Your task to perform on an android device: read, delete, or share a saved page in the chrome app Image 0: 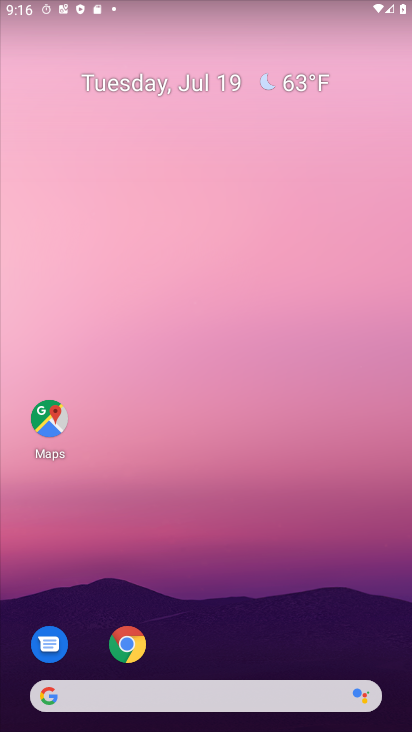
Step 0: click (209, 109)
Your task to perform on an android device: read, delete, or share a saved page in the chrome app Image 1: 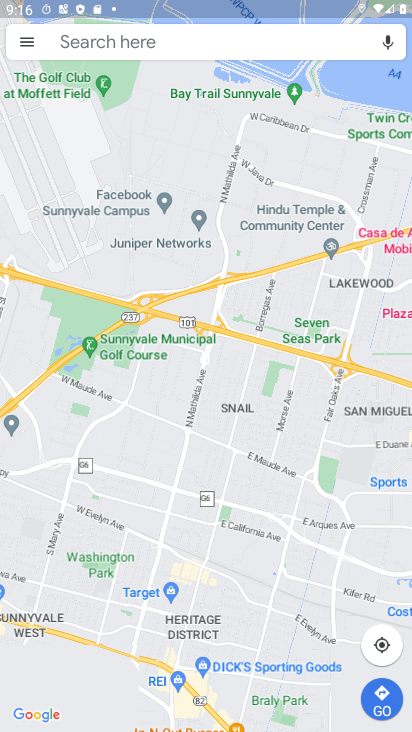
Step 1: click (221, 274)
Your task to perform on an android device: read, delete, or share a saved page in the chrome app Image 2: 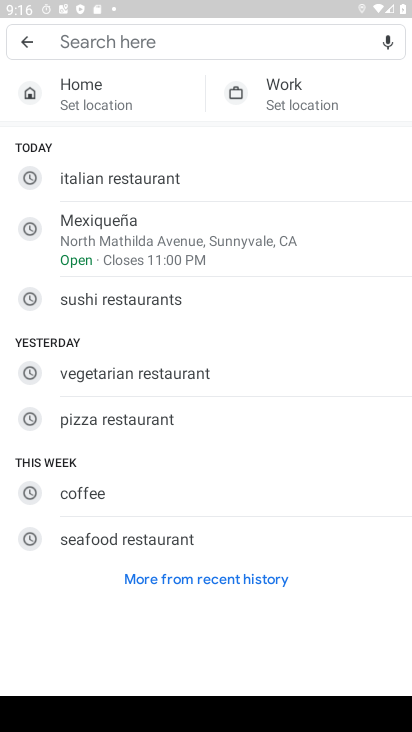
Step 2: press back button
Your task to perform on an android device: read, delete, or share a saved page in the chrome app Image 3: 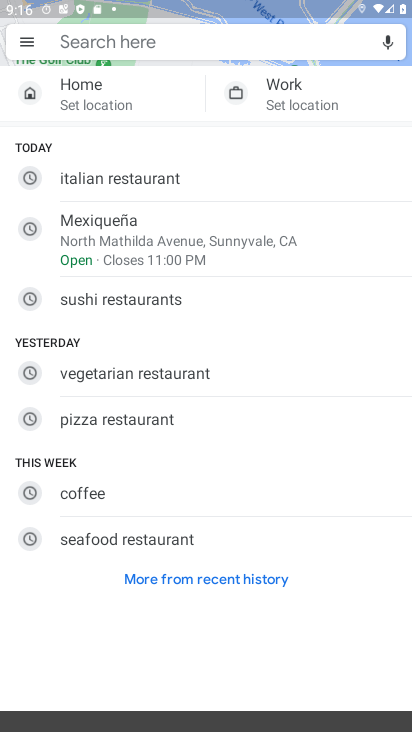
Step 3: press back button
Your task to perform on an android device: read, delete, or share a saved page in the chrome app Image 4: 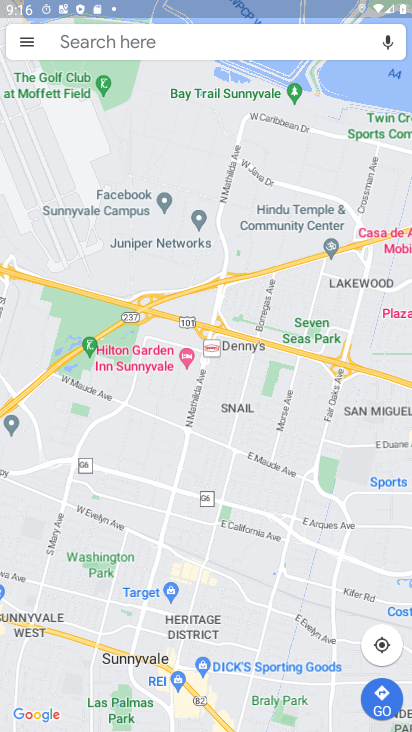
Step 4: press back button
Your task to perform on an android device: read, delete, or share a saved page in the chrome app Image 5: 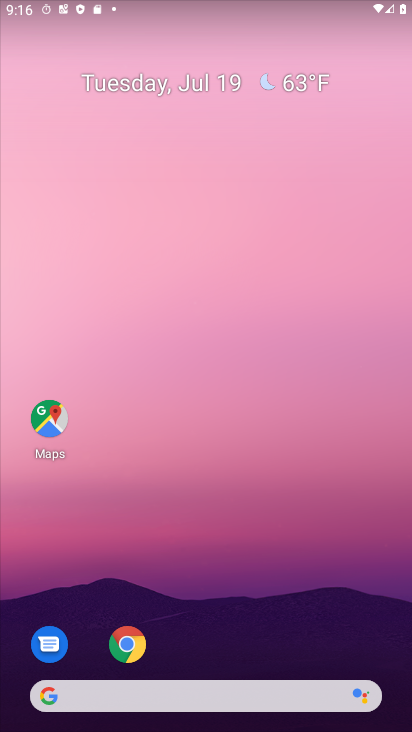
Step 5: drag from (272, 677) to (291, 52)
Your task to perform on an android device: read, delete, or share a saved page in the chrome app Image 6: 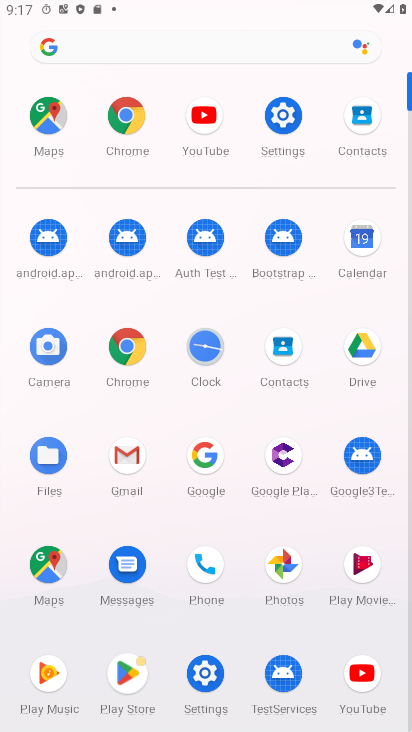
Step 6: click (108, 102)
Your task to perform on an android device: read, delete, or share a saved page in the chrome app Image 7: 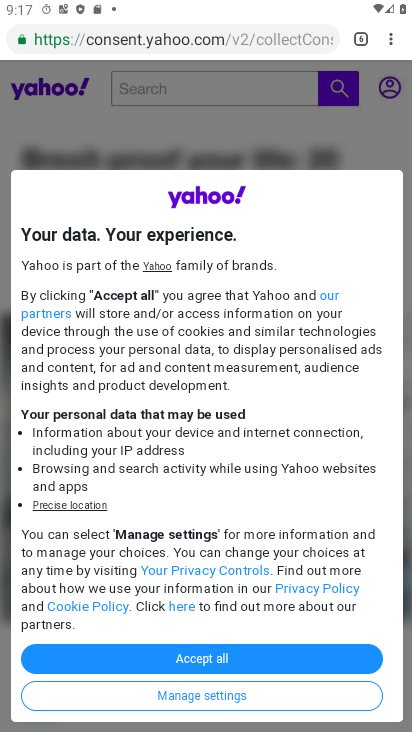
Step 7: drag from (386, 38) to (270, 247)
Your task to perform on an android device: read, delete, or share a saved page in the chrome app Image 8: 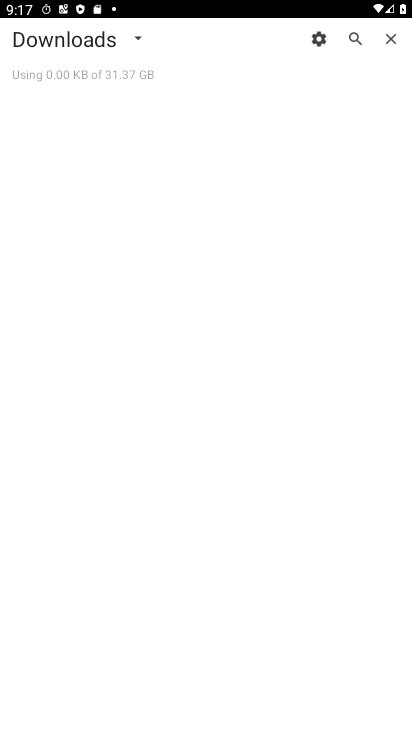
Step 8: click (133, 36)
Your task to perform on an android device: read, delete, or share a saved page in the chrome app Image 9: 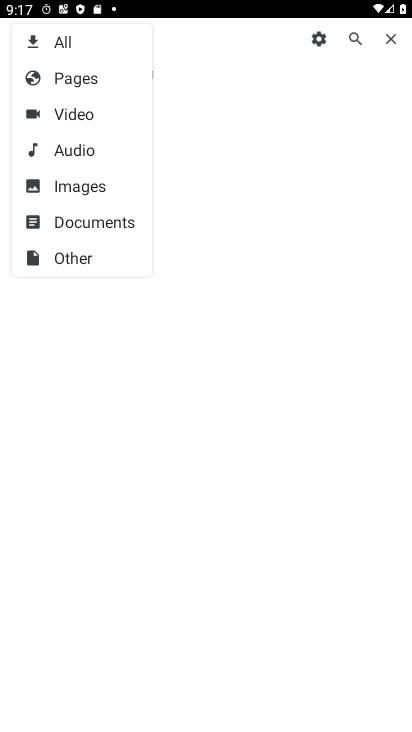
Step 9: click (83, 73)
Your task to perform on an android device: read, delete, or share a saved page in the chrome app Image 10: 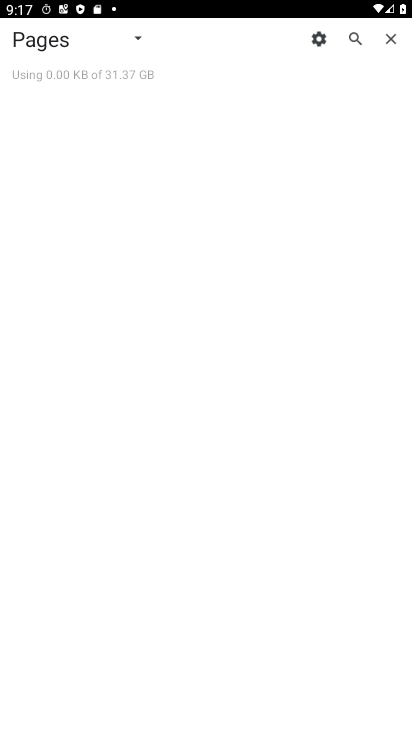
Step 10: task complete